Your task to perform on an android device: Open Reddit.com Image 0: 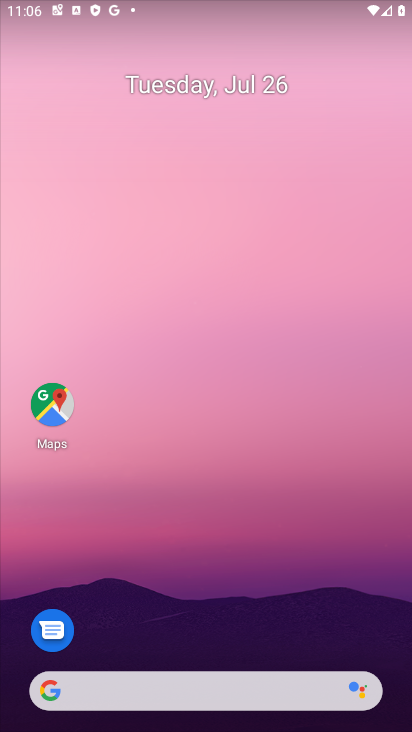
Step 0: drag from (206, 683) to (310, 145)
Your task to perform on an android device: Open Reddit.com Image 1: 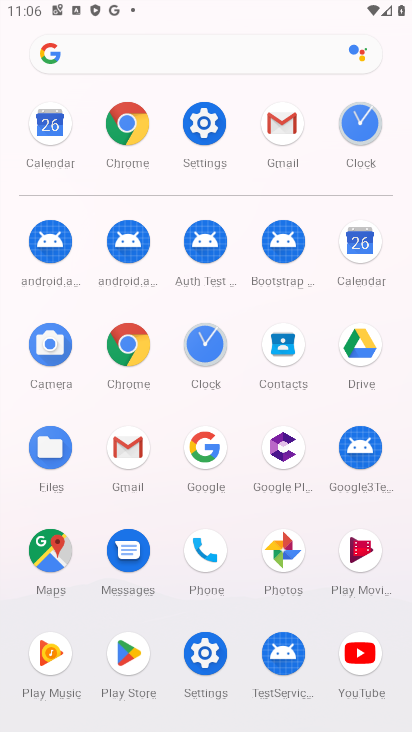
Step 1: click (121, 117)
Your task to perform on an android device: Open Reddit.com Image 2: 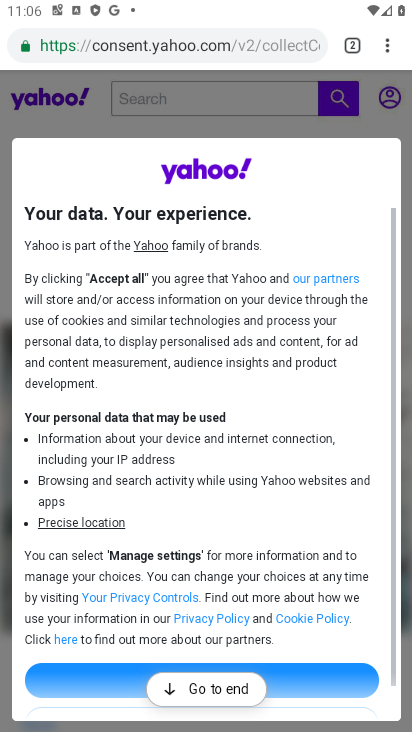
Step 2: click (197, 48)
Your task to perform on an android device: Open Reddit.com Image 3: 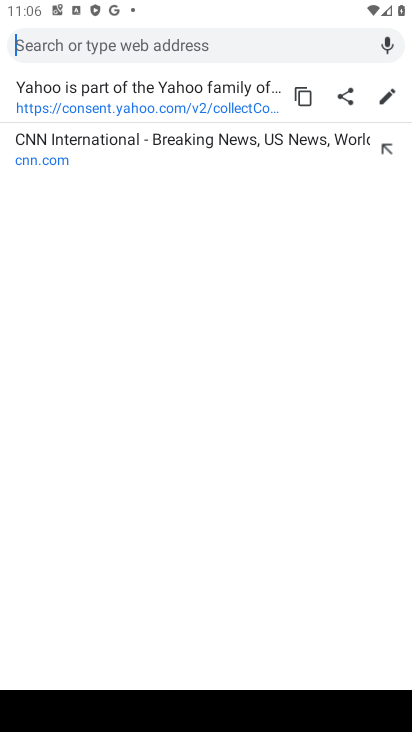
Step 3: type "Reddit.com"
Your task to perform on an android device: Open Reddit.com Image 4: 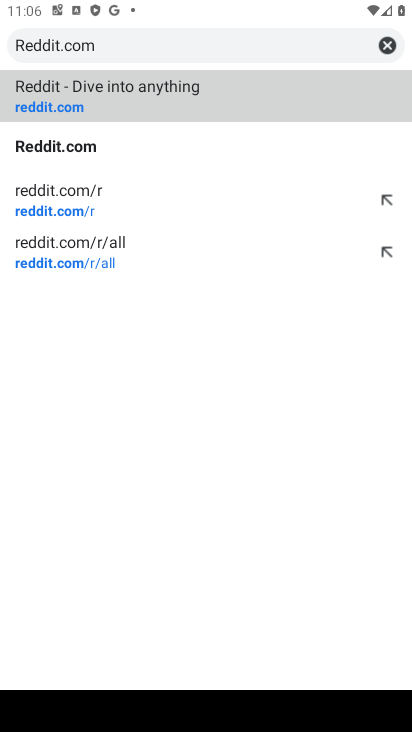
Step 4: click (37, 146)
Your task to perform on an android device: Open Reddit.com Image 5: 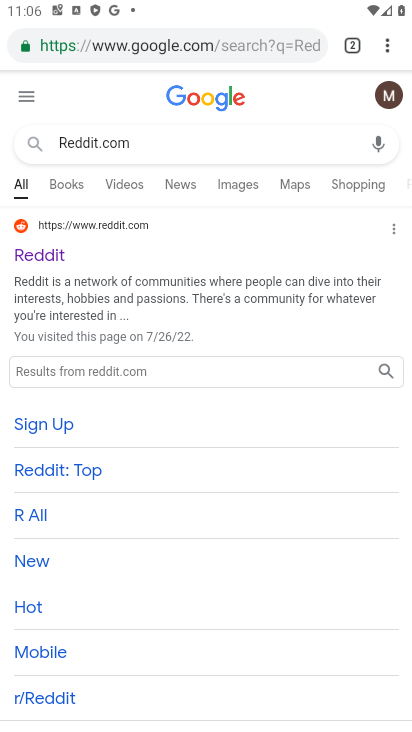
Step 5: click (36, 252)
Your task to perform on an android device: Open Reddit.com Image 6: 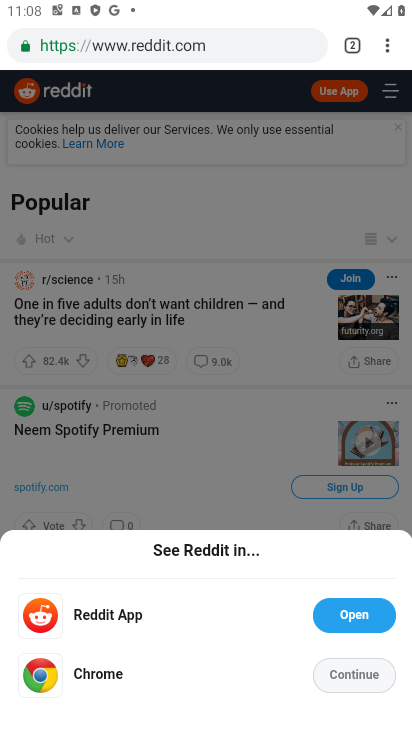
Step 6: task complete